Your task to perform on an android device: Open calendar and show me the second week of next month Image 0: 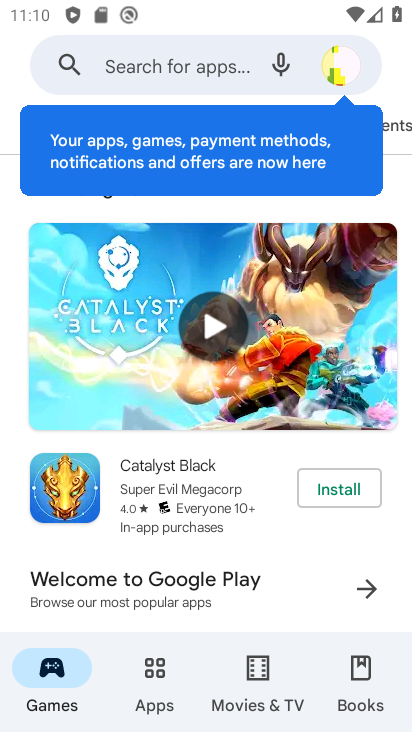
Step 0: press home button
Your task to perform on an android device: Open calendar and show me the second week of next month Image 1: 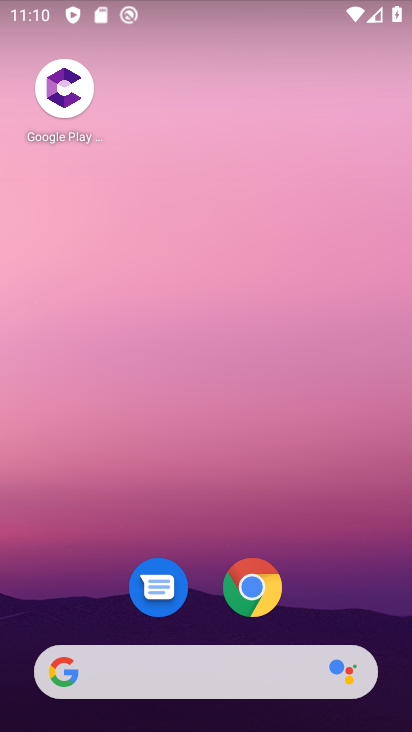
Step 1: drag from (12, 405) to (377, 363)
Your task to perform on an android device: Open calendar and show me the second week of next month Image 2: 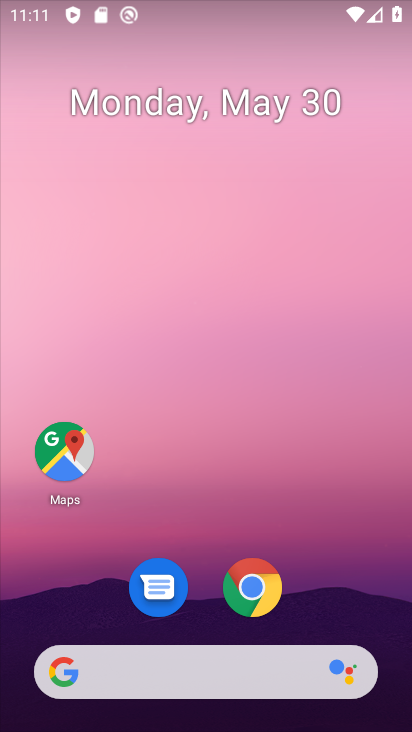
Step 2: click (230, 117)
Your task to perform on an android device: Open calendar and show me the second week of next month Image 3: 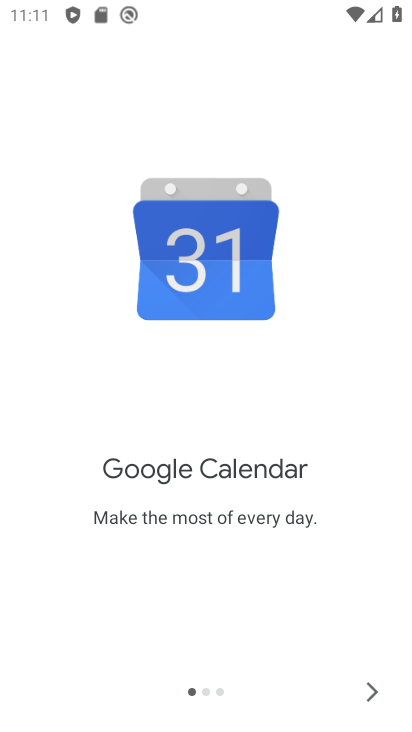
Step 3: click (376, 697)
Your task to perform on an android device: Open calendar and show me the second week of next month Image 4: 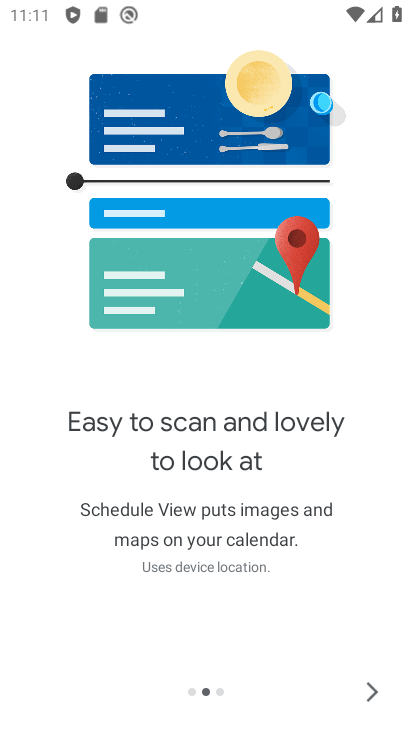
Step 4: click (376, 697)
Your task to perform on an android device: Open calendar and show me the second week of next month Image 5: 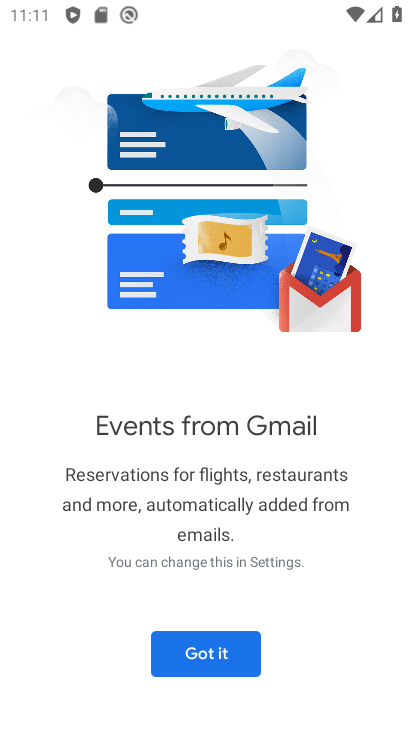
Step 5: click (243, 658)
Your task to perform on an android device: Open calendar and show me the second week of next month Image 6: 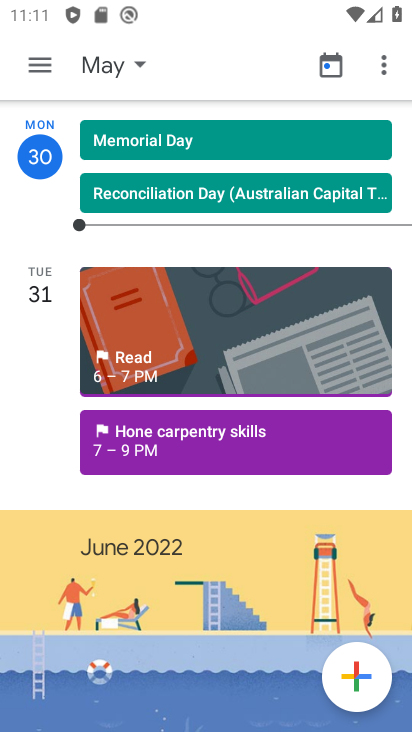
Step 6: click (125, 51)
Your task to perform on an android device: Open calendar and show me the second week of next month Image 7: 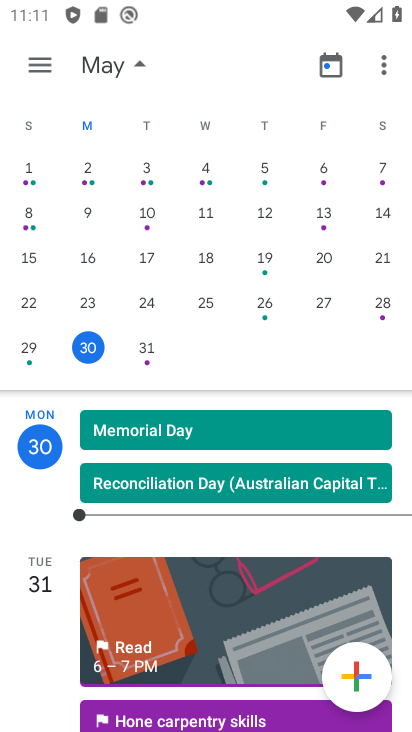
Step 7: drag from (324, 367) to (45, 289)
Your task to perform on an android device: Open calendar and show me the second week of next month Image 8: 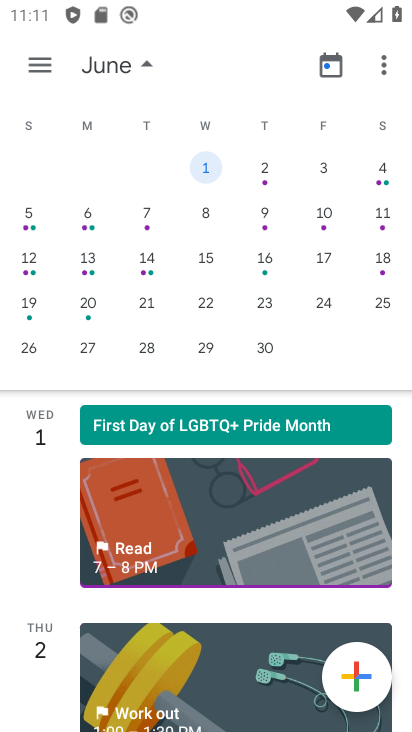
Step 8: click (195, 220)
Your task to perform on an android device: Open calendar and show me the second week of next month Image 9: 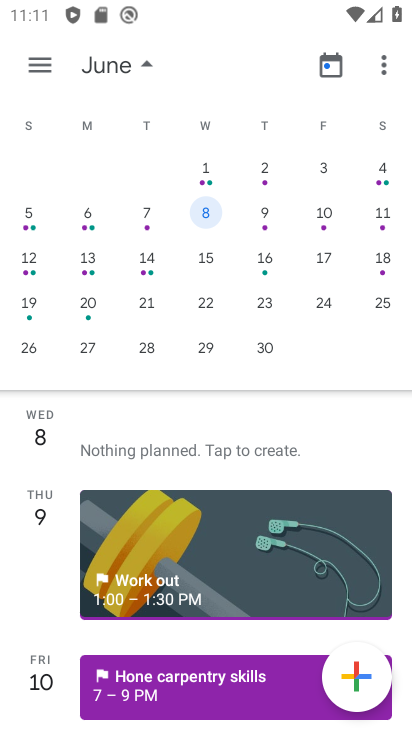
Step 9: task complete